Your task to perform on an android device: What's on my calendar tomorrow? Image 0: 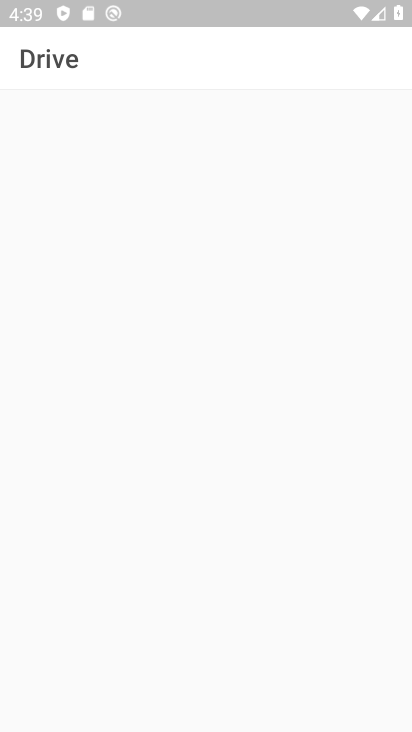
Step 0: press home button
Your task to perform on an android device: What's on my calendar tomorrow? Image 1: 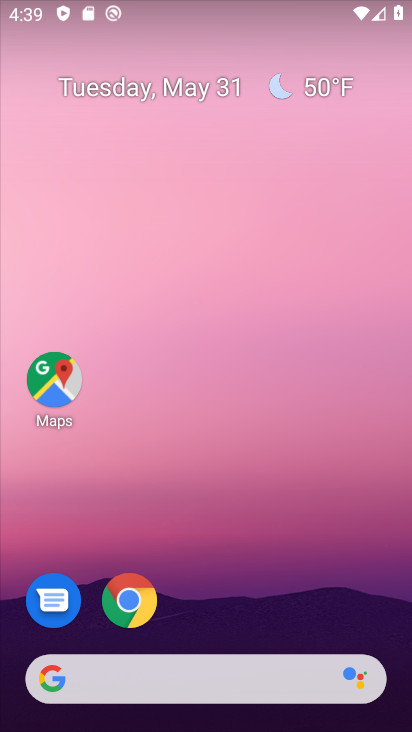
Step 1: drag from (257, 576) to (279, 72)
Your task to perform on an android device: What's on my calendar tomorrow? Image 2: 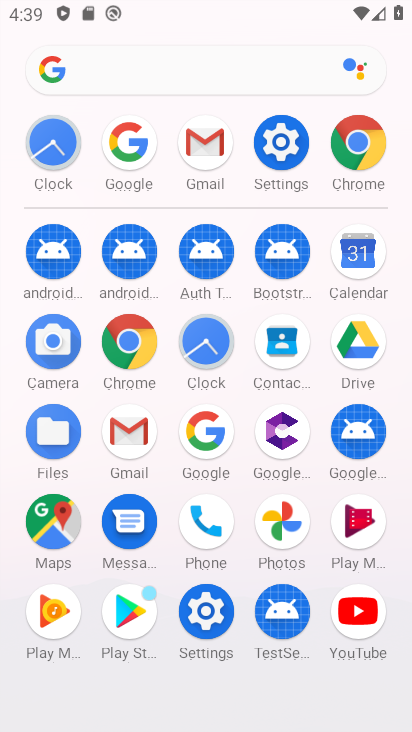
Step 2: click (358, 255)
Your task to perform on an android device: What's on my calendar tomorrow? Image 3: 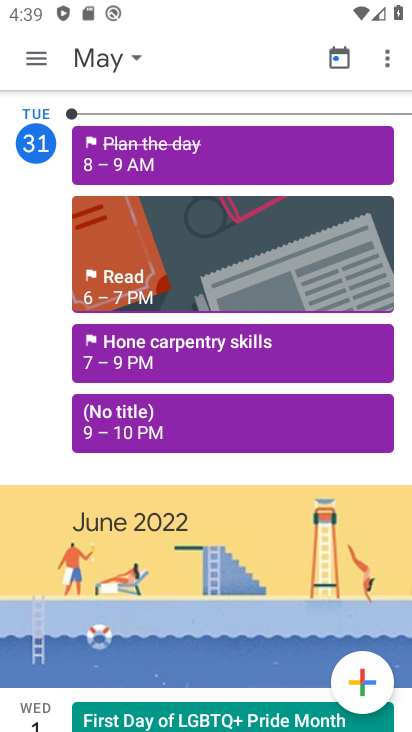
Step 3: click (141, 58)
Your task to perform on an android device: What's on my calendar tomorrow? Image 4: 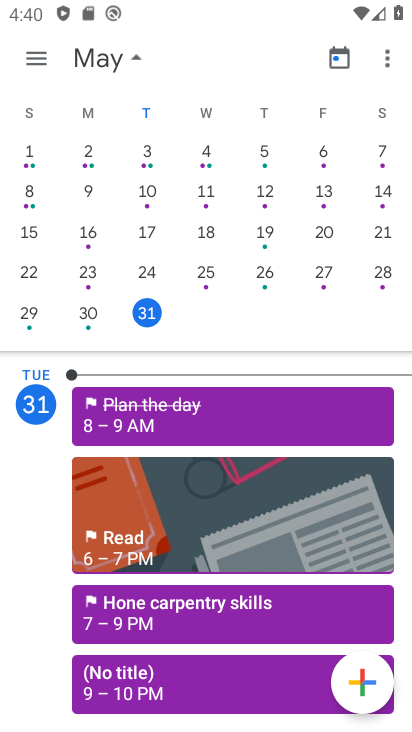
Step 4: drag from (319, 291) to (52, 303)
Your task to perform on an android device: What's on my calendar tomorrow? Image 5: 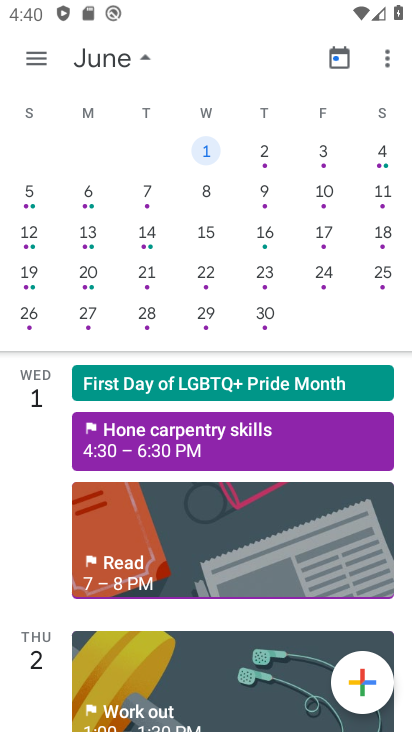
Step 5: click (204, 143)
Your task to perform on an android device: What's on my calendar tomorrow? Image 6: 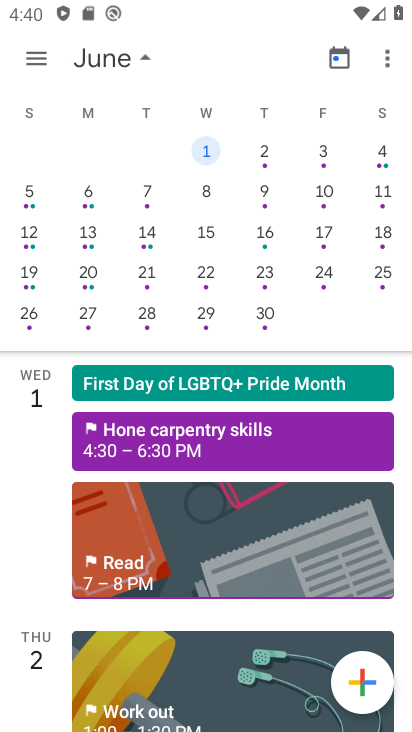
Step 6: click (35, 53)
Your task to perform on an android device: What's on my calendar tomorrow? Image 7: 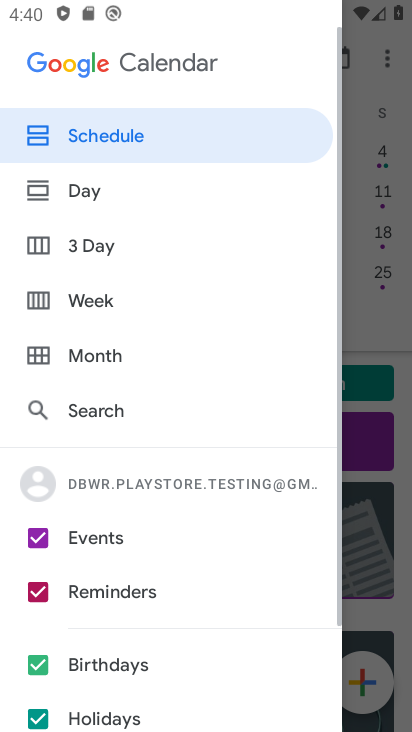
Step 7: click (85, 130)
Your task to perform on an android device: What's on my calendar tomorrow? Image 8: 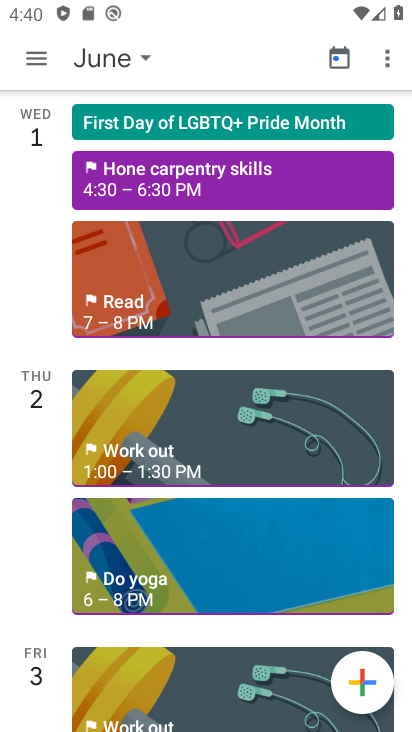
Step 8: task complete